Your task to perform on an android device: Open ESPN.com Image 0: 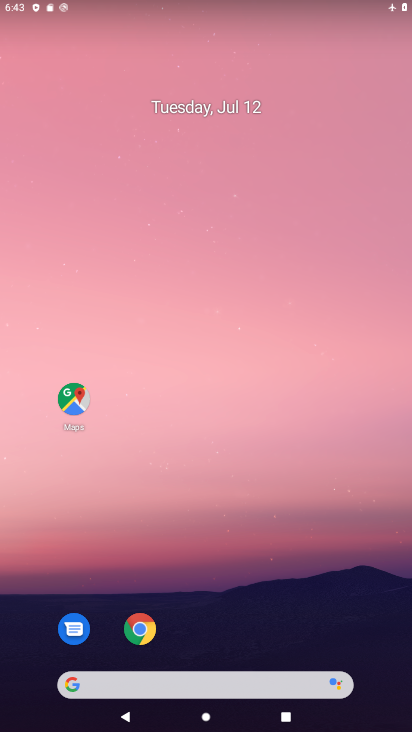
Step 0: click (143, 632)
Your task to perform on an android device: Open ESPN.com Image 1: 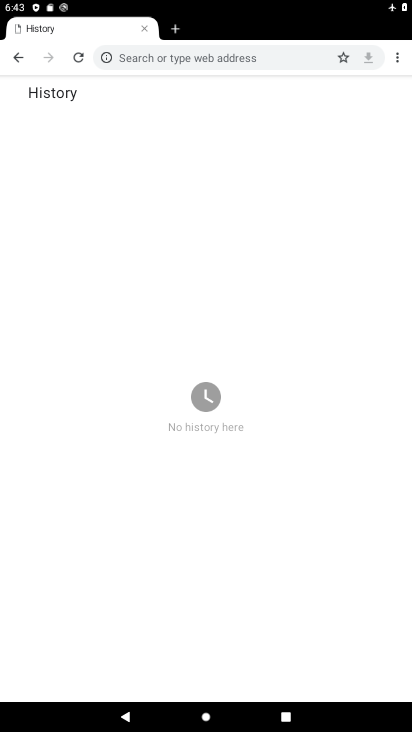
Step 1: click (397, 56)
Your task to perform on an android device: Open ESPN.com Image 2: 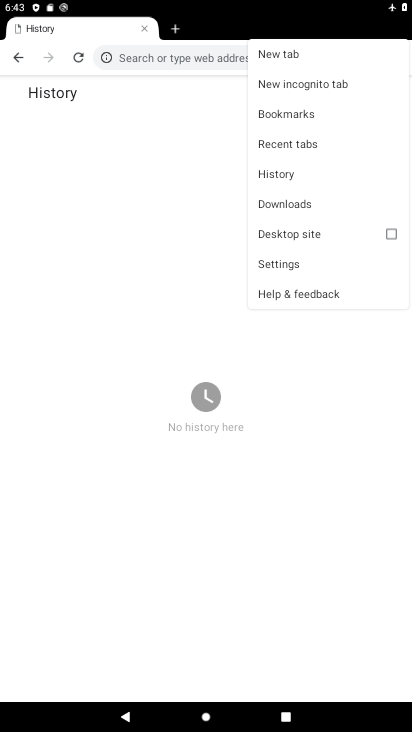
Step 2: click (267, 51)
Your task to perform on an android device: Open ESPN.com Image 3: 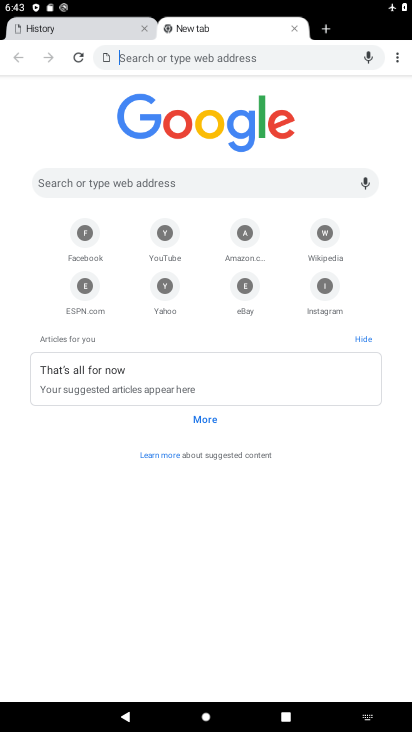
Step 3: click (133, 177)
Your task to perform on an android device: Open ESPN.com Image 4: 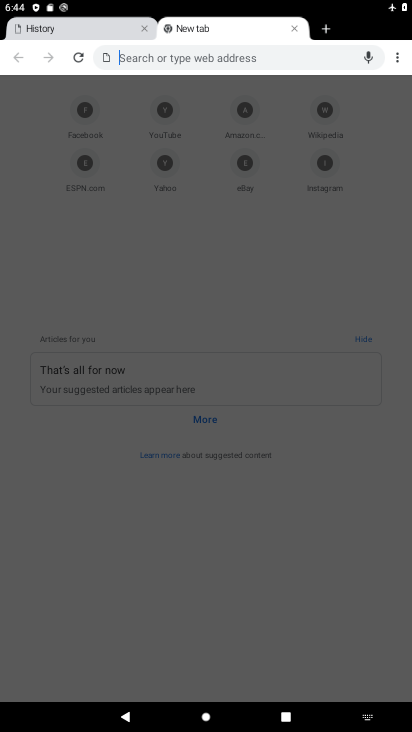
Step 4: type "espn.com"
Your task to perform on an android device: Open ESPN.com Image 5: 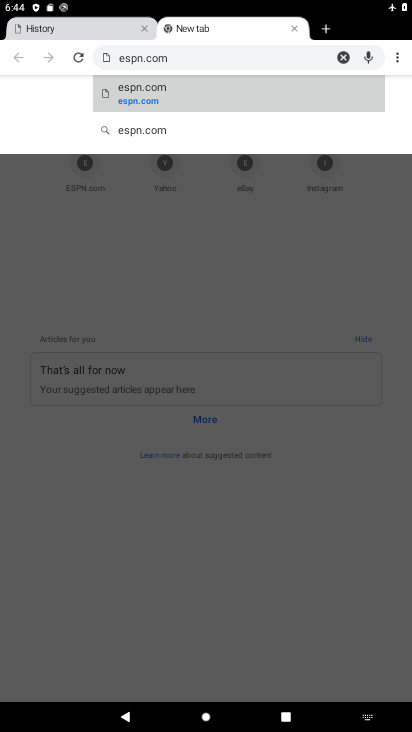
Step 5: click (149, 97)
Your task to perform on an android device: Open ESPN.com Image 6: 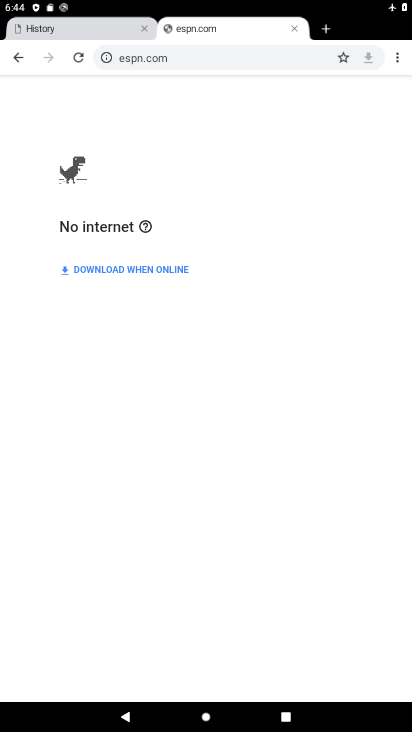
Step 6: task complete